Your task to perform on an android device: change notifications settings Image 0: 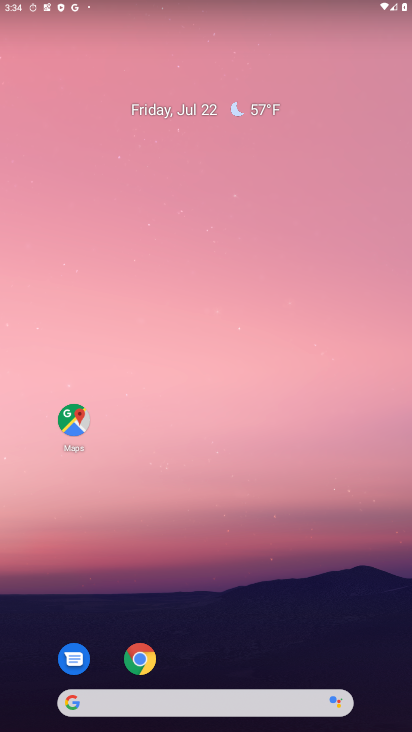
Step 0: drag from (301, 624) to (309, 76)
Your task to perform on an android device: change notifications settings Image 1: 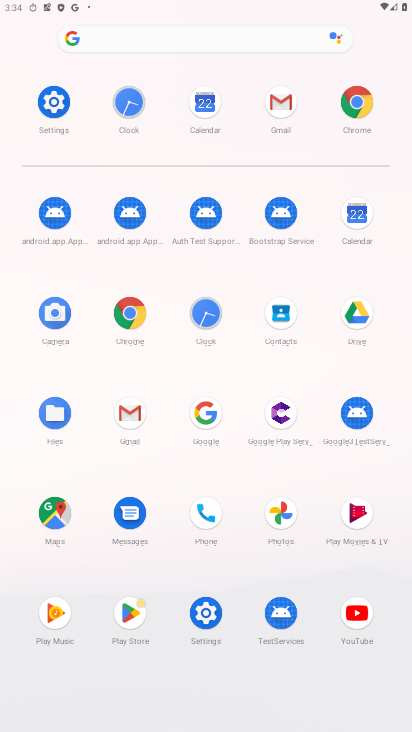
Step 1: click (59, 94)
Your task to perform on an android device: change notifications settings Image 2: 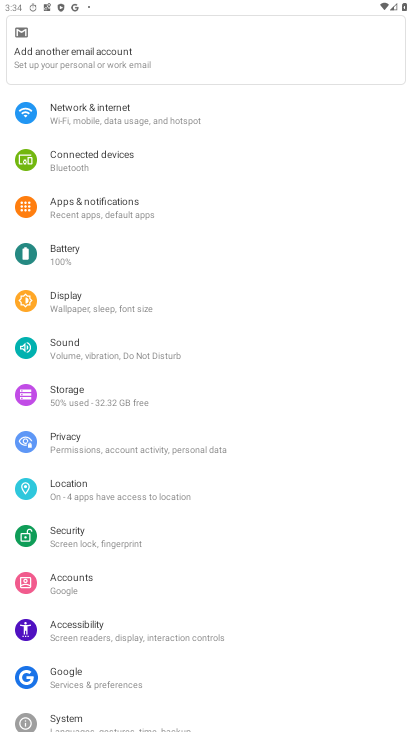
Step 2: click (109, 213)
Your task to perform on an android device: change notifications settings Image 3: 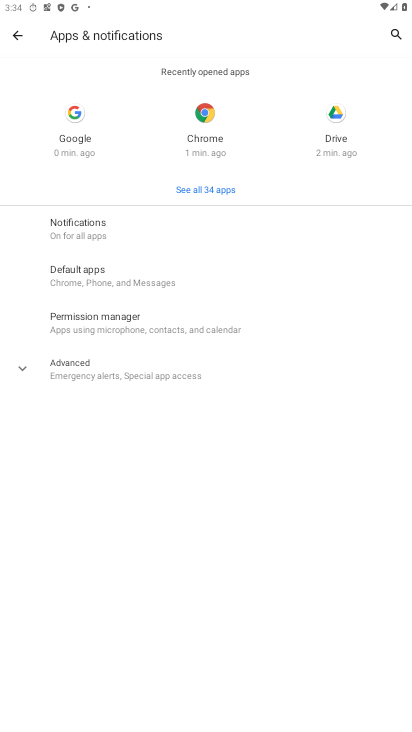
Step 3: click (113, 226)
Your task to perform on an android device: change notifications settings Image 4: 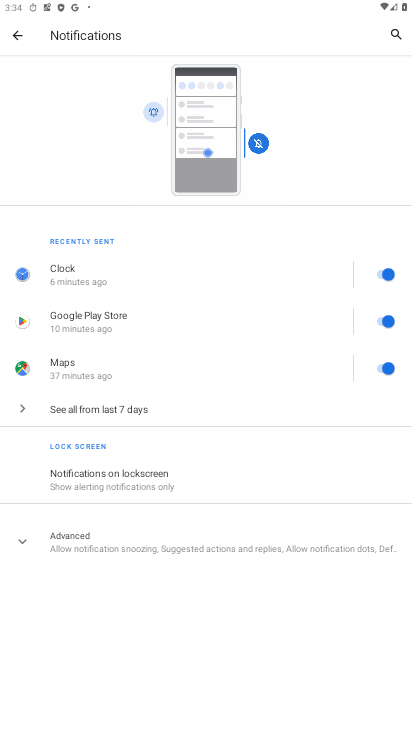
Step 4: click (123, 405)
Your task to perform on an android device: change notifications settings Image 5: 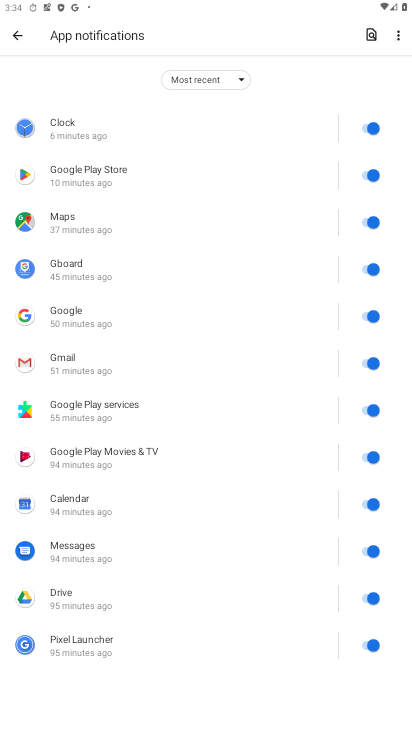
Step 5: click (363, 137)
Your task to perform on an android device: change notifications settings Image 6: 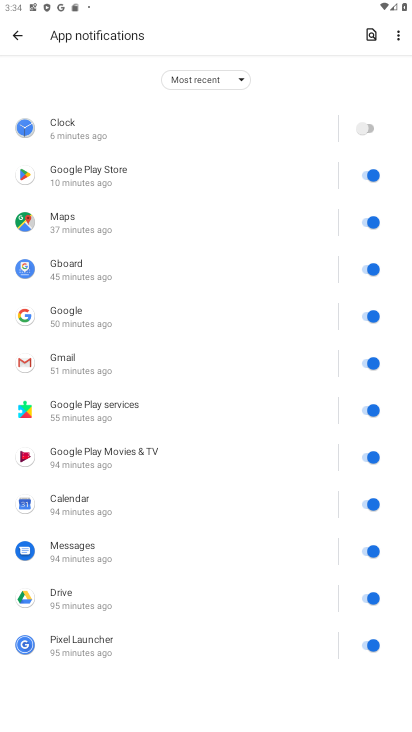
Step 6: click (367, 180)
Your task to perform on an android device: change notifications settings Image 7: 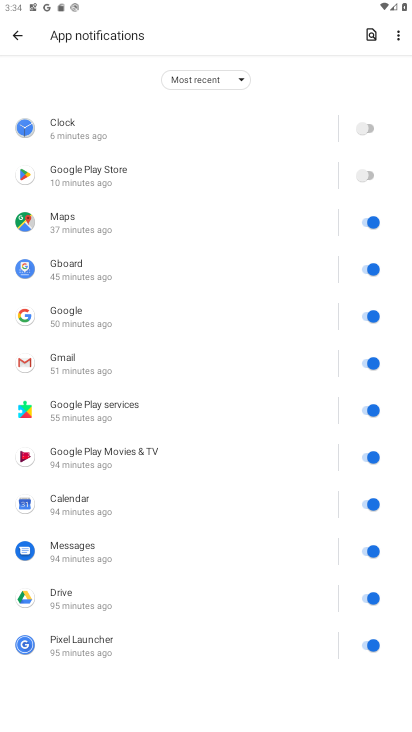
Step 7: click (367, 227)
Your task to perform on an android device: change notifications settings Image 8: 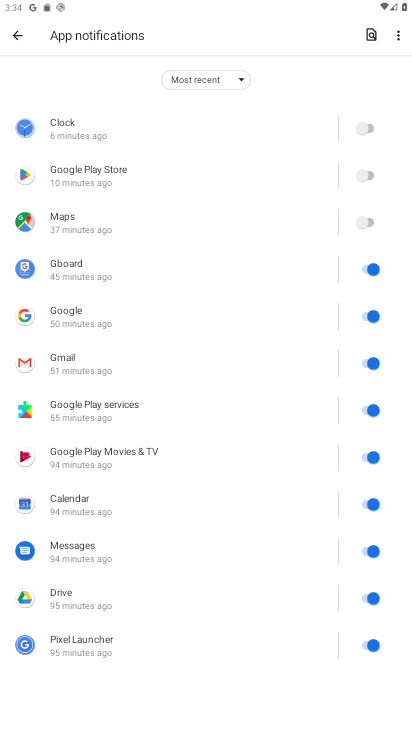
Step 8: click (361, 270)
Your task to perform on an android device: change notifications settings Image 9: 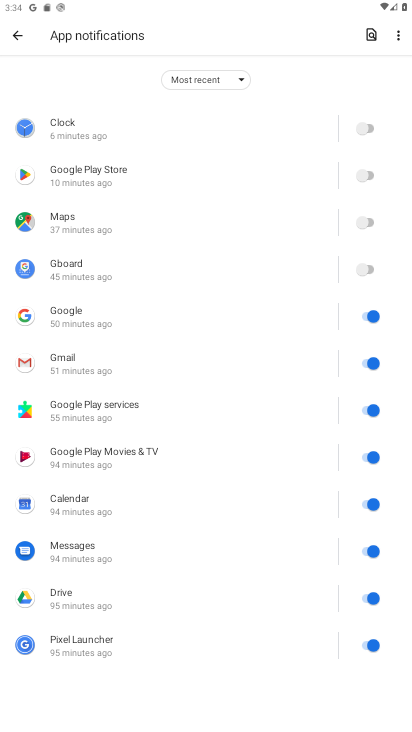
Step 9: click (361, 319)
Your task to perform on an android device: change notifications settings Image 10: 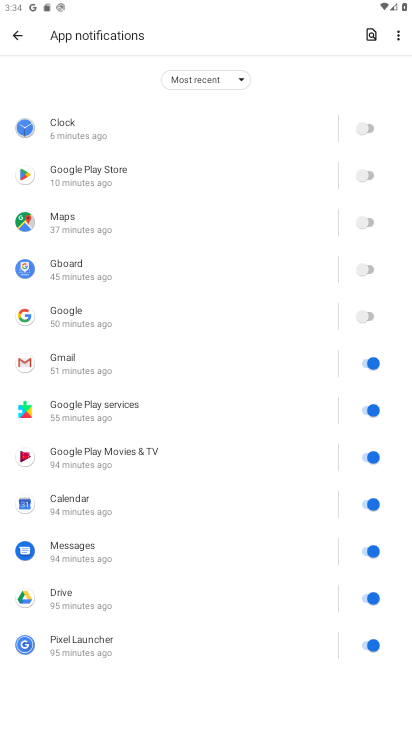
Step 10: click (367, 359)
Your task to perform on an android device: change notifications settings Image 11: 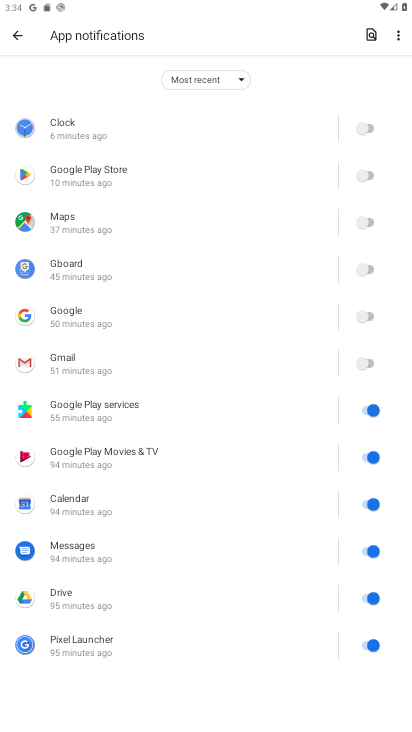
Step 11: click (367, 411)
Your task to perform on an android device: change notifications settings Image 12: 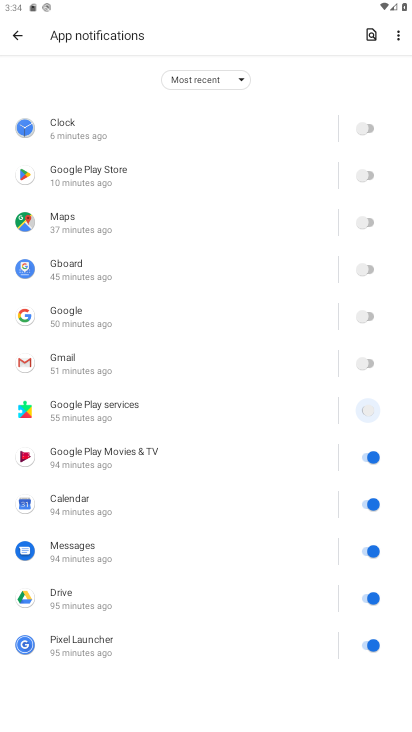
Step 12: click (375, 465)
Your task to perform on an android device: change notifications settings Image 13: 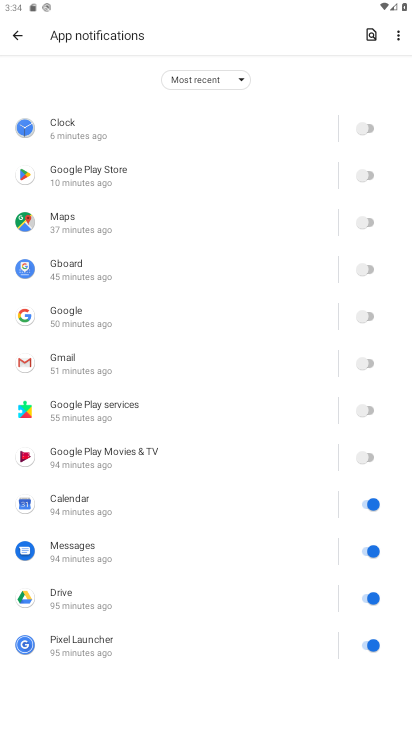
Step 13: click (374, 504)
Your task to perform on an android device: change notifications settings Image 14: 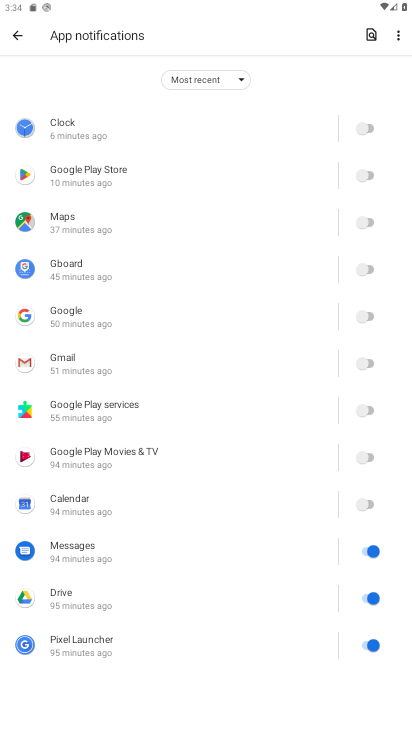
Step 14: click (371, 547)
Your task to perform on an android device: change notifications settings Image 15: 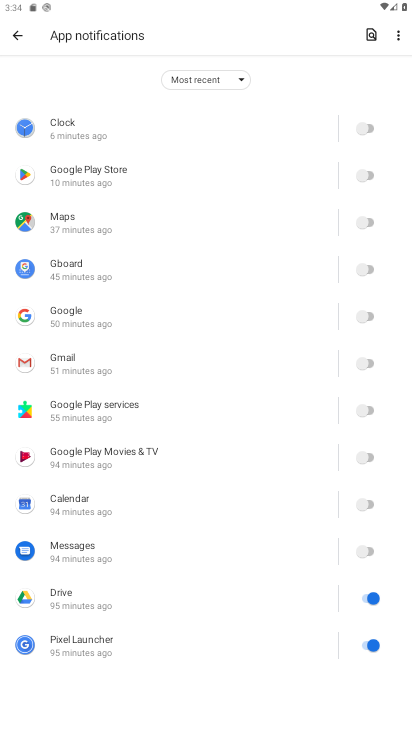
Step 15: click (371, 595)
Your task to perform on an android device: change notifications settings Image 16: 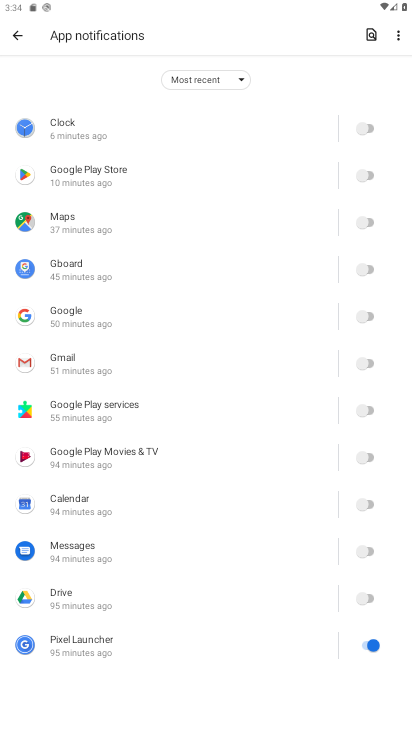
Step 16: click (371, 654)
Your task to perform on an android device: change notifications settings Image 17: 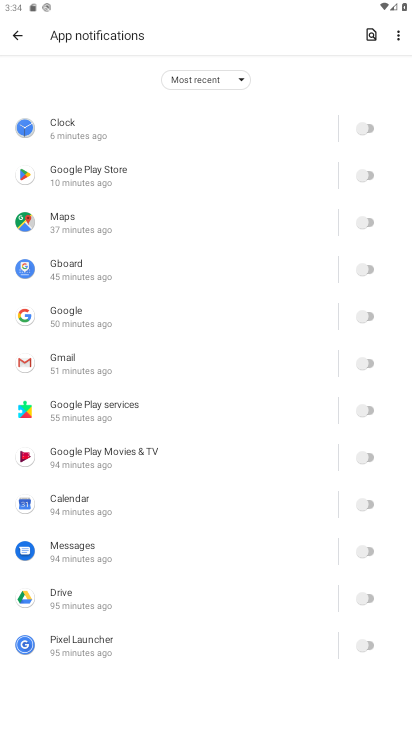
Step 17: click (18, 32)
Your task to perform on an android device: change notifications settings Image 18: 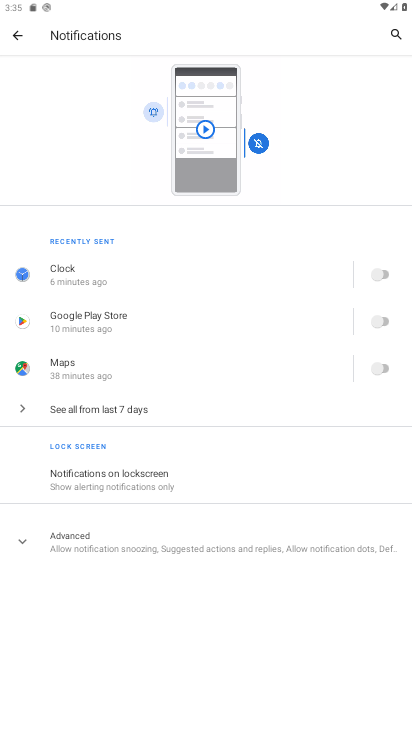
Step 18: click (181, 471)
Your task to perform on an android device: change notifications settings Image 19: 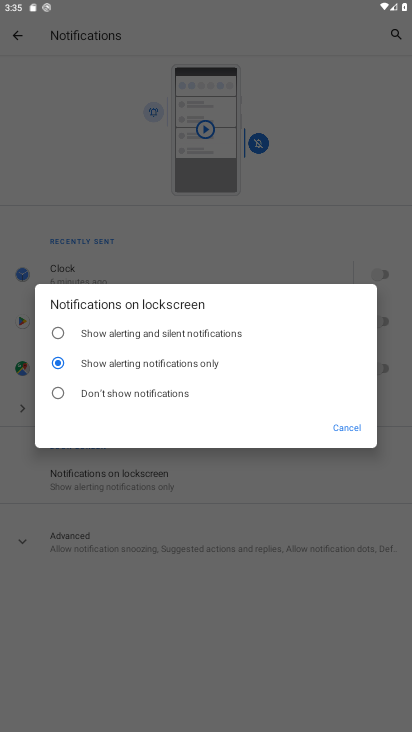
Step 19: click (164, 338)
Your task to perform on an android device: change notifications settings Image 20: 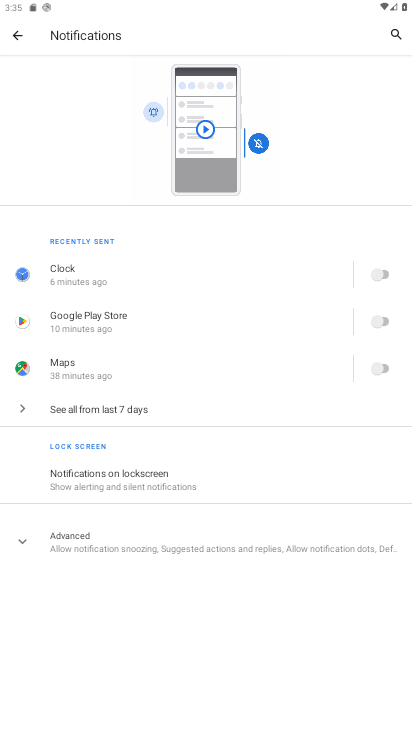
Step 20: click (112, 528)
Your task to perform on an android device: change notifications settings Image 21: 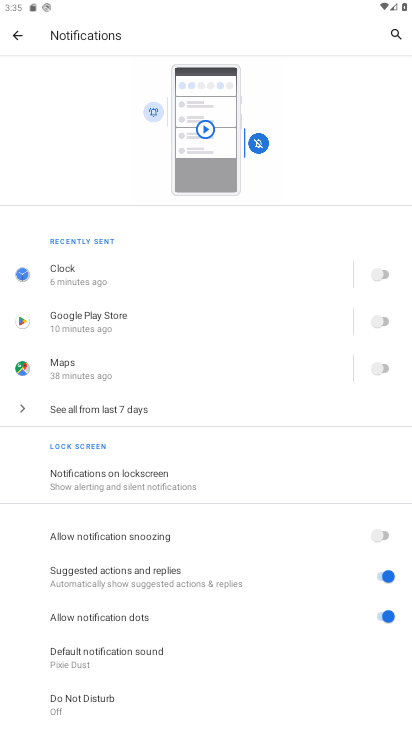
Step 21: click (386, 531)
Your task to perform on an android device: change notifications settings Image 22: 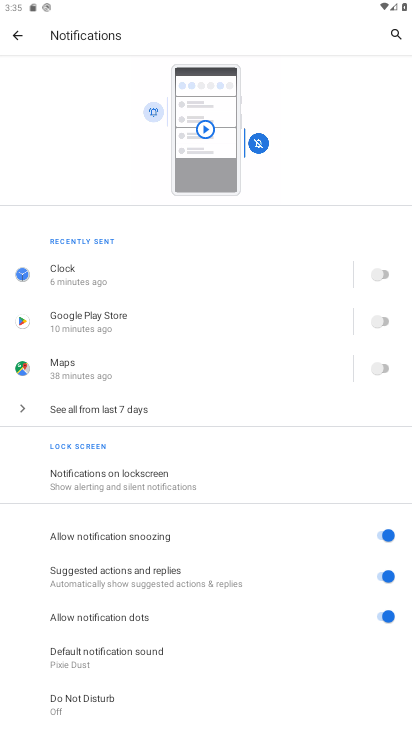
Step 22: click (387, 569)
Your task to perform on an android device: change notifications settings Image 23: 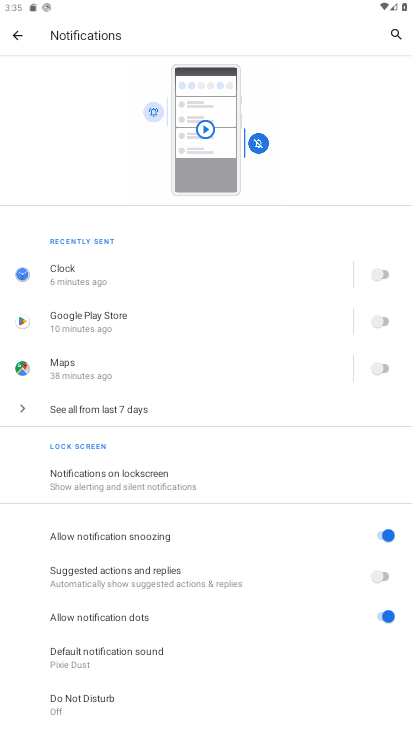
Step 23: click (385, 616)
Your task to perform on an android device: change notifications settings Image 24: 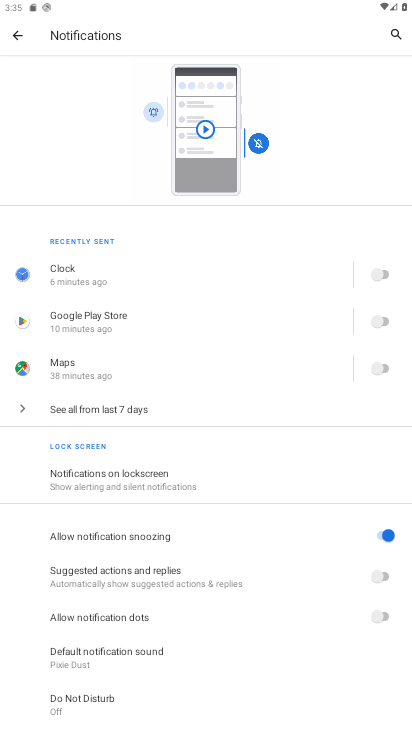
Step 24: task complete